Your task to perform on an android device: turn off location Image 0: 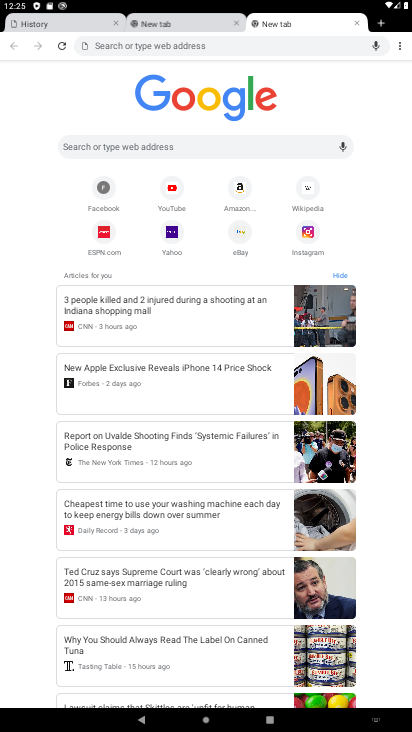
Step 0: press home button
Your task to perform on an android device: turn off location Image 1: 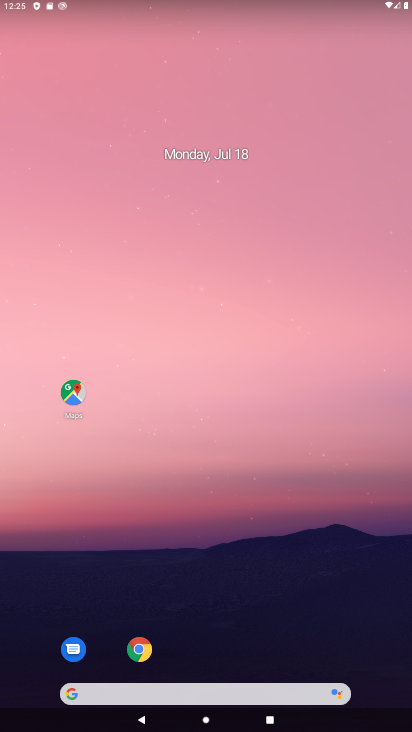
Step 1: drag from (48, 697) to (248, 215)
Your task to perform on an android device: turn off location Image 2: 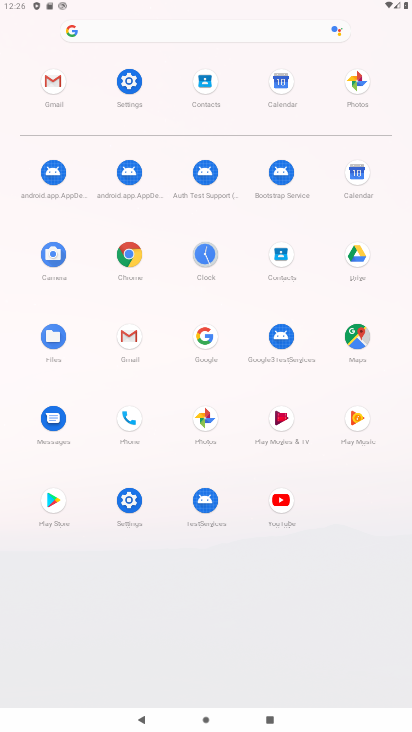
Step 2: click (122, 498)
Your task to perform on an android device: turn off location Image 3: 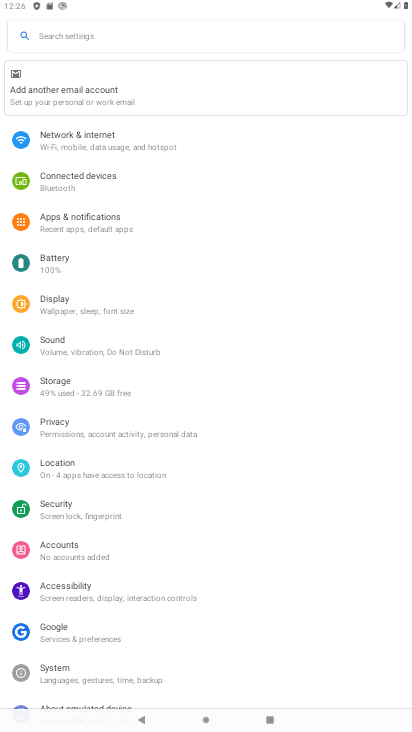
Step 3: click (97, 457)
Your task to perform on an android device: turn off location Image 4: 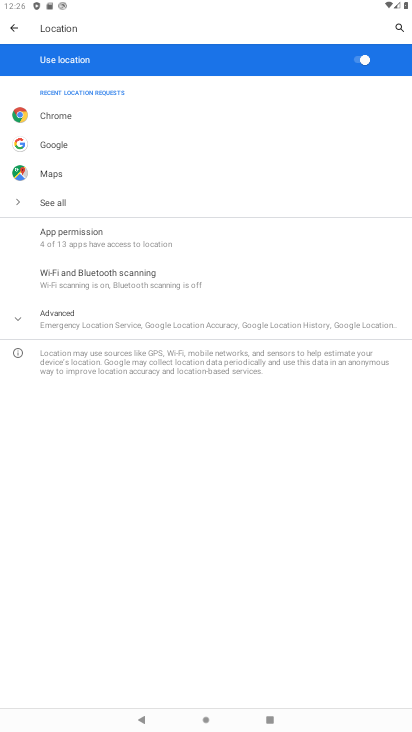
Step 4: click (107, 231)
Your task to perform on an android device: turn off location Image 5: 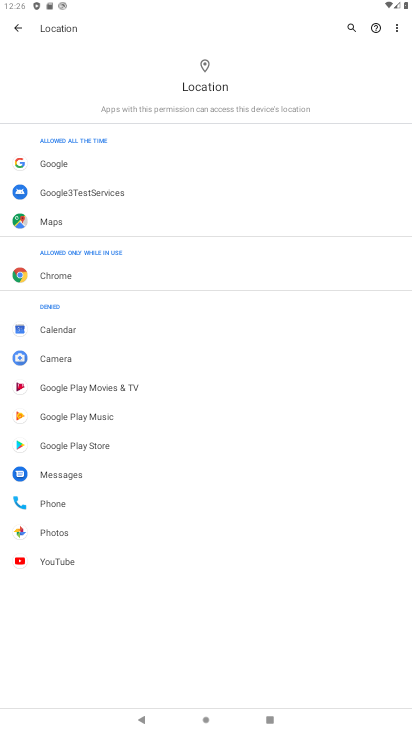
Step 5: task complete